Your task to perform on an android device: Search for vegetarian restaurants on Maps Image 0: 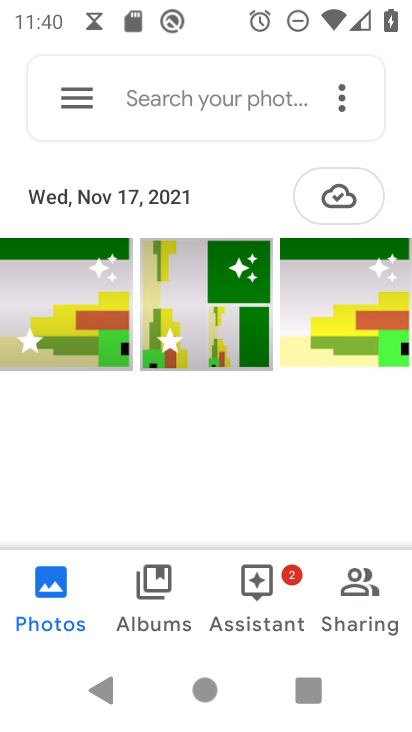
Step 0: press home button
Your task to perform on an android device: Search for vegetarian restaurants on Maps Image 1: 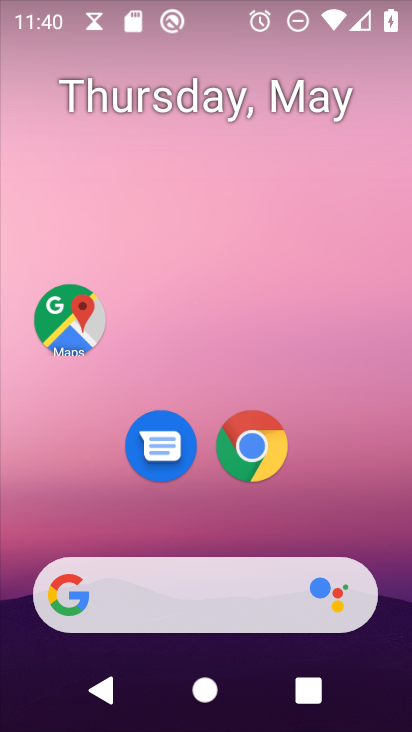
Step 1: drag from (359, 617) to (320, 249)
Your task to perform on an android device: Search for vegetarian restaurants on Maps Image 2: 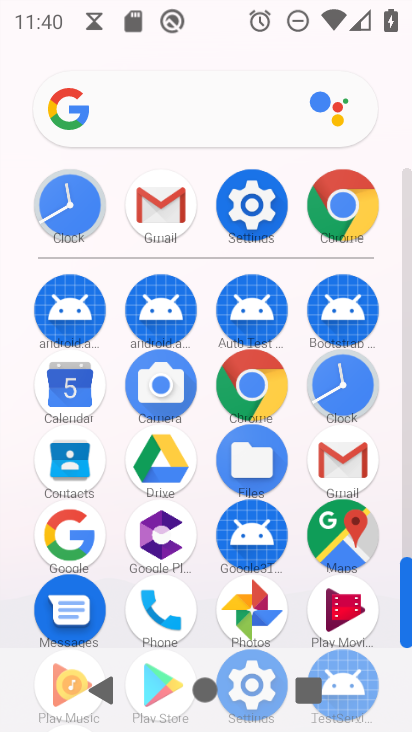
Step 2: click (338, 542)
Your task to perform on an android device: Search for vegetarian restaurants on Maps Image 3: 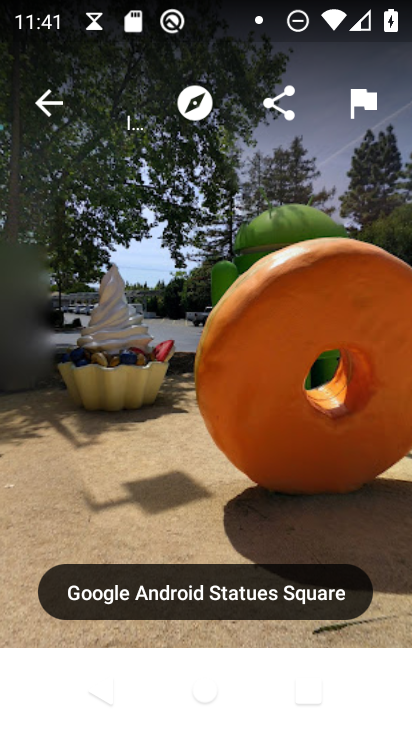
Step 3: click (62, 99)
Your task to perform on an android device: Search for vegetarian restaurants on Maps Image 4: 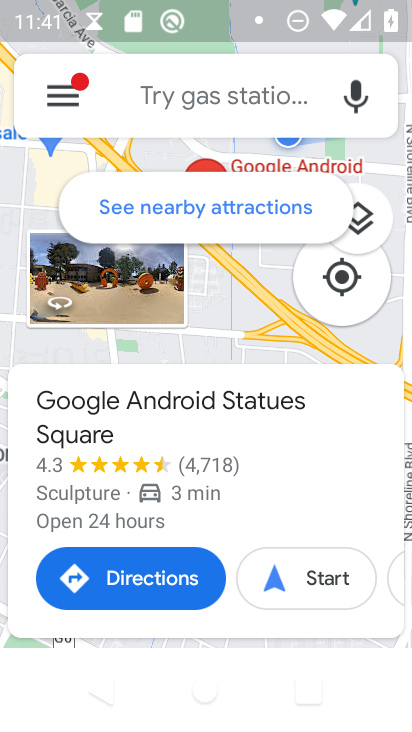
Step 4: click (57, 103)
Your task to perform on an android device: Search for vegetarian restaurants on Maps Image 5: 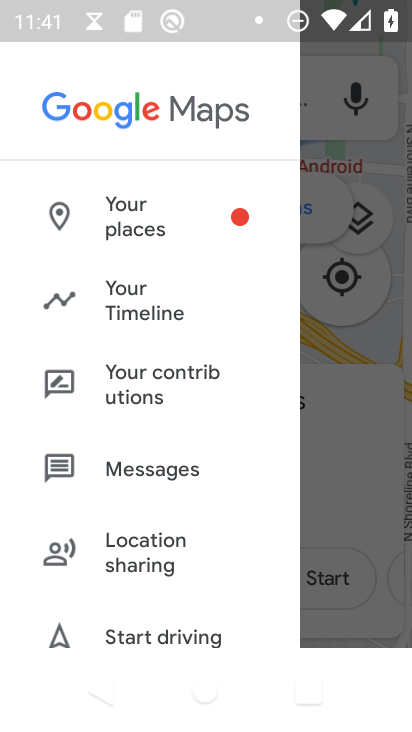
Step 5: click (322, 294)
Your task to perform on an android device: Search for vegetarian restaurants on Maps Image 6: 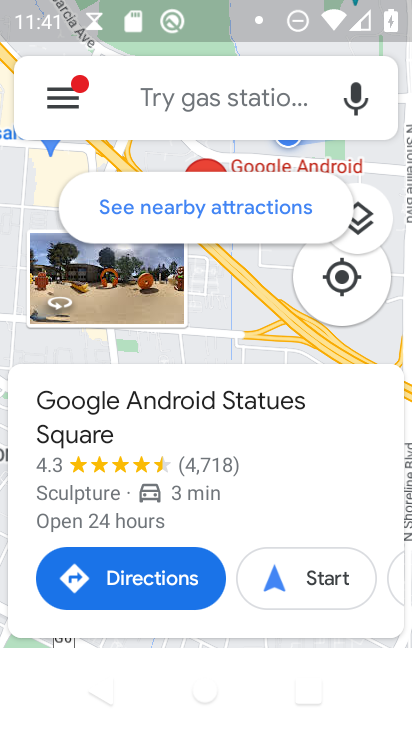
Step 6: click (229, 99)
Your task to perform on an android device: Search for vegetarian restaurants on Maps Image 7: 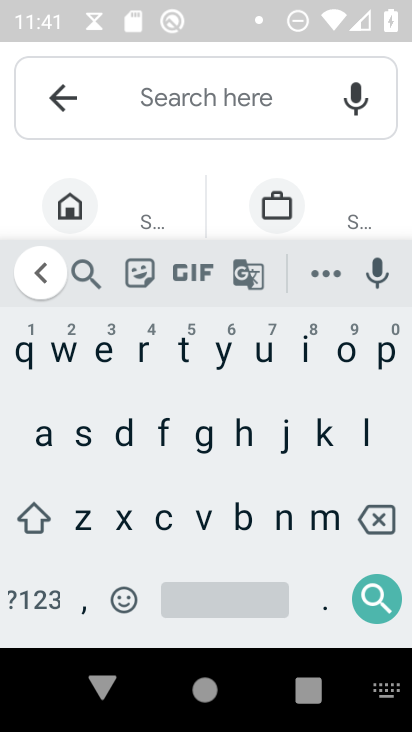
Step 7: click (201, 529)
Your task to perform on an android device: Search for vegetarian restaurants on Maps Image 8: 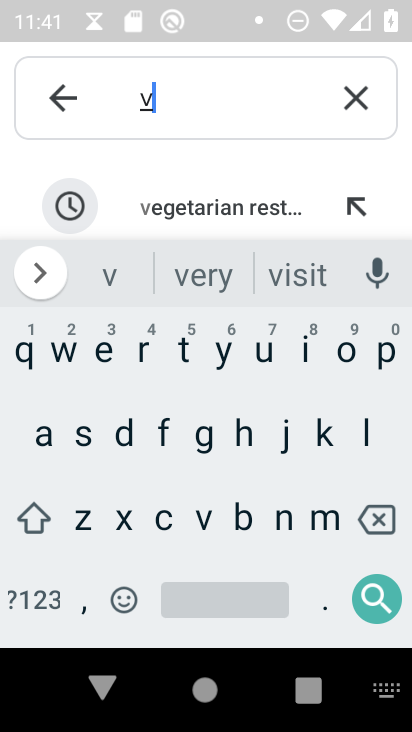
Step 8: click (231, 218)
Your task to perform on an android device: Search for vegetarian restaurants on Maps Image 9: 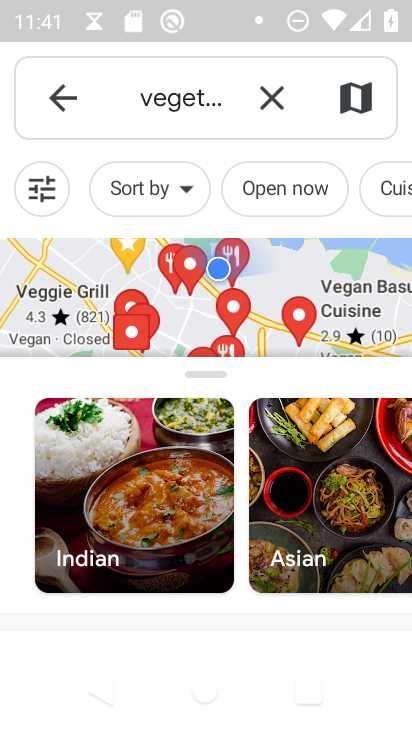
Step 9: click (190, 310)
Your task to perform on an android device: Search for vegetarian restaurants on Maps Image 10: 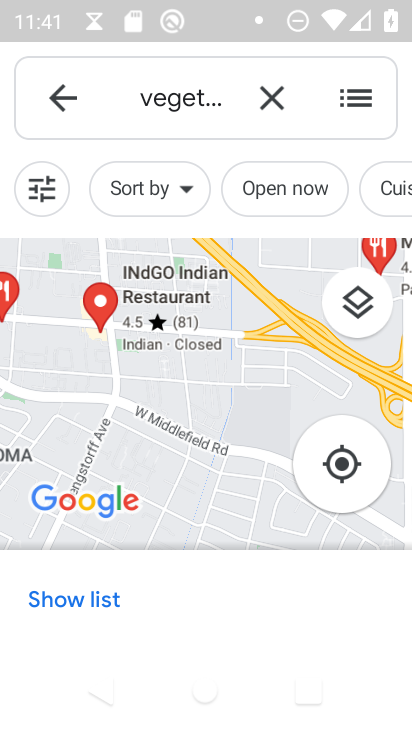
Step 10: task complete